Your task to perform on an android device: See recent photos Image 0: 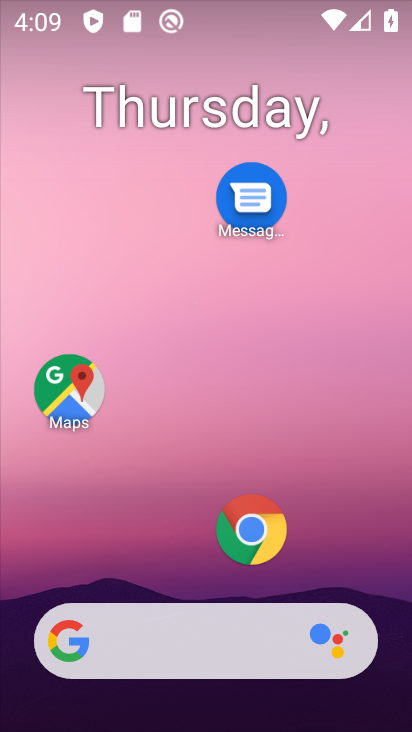
Step 0: click (264, 524)
Your task to perform on an android device: See recent photos Image 1: 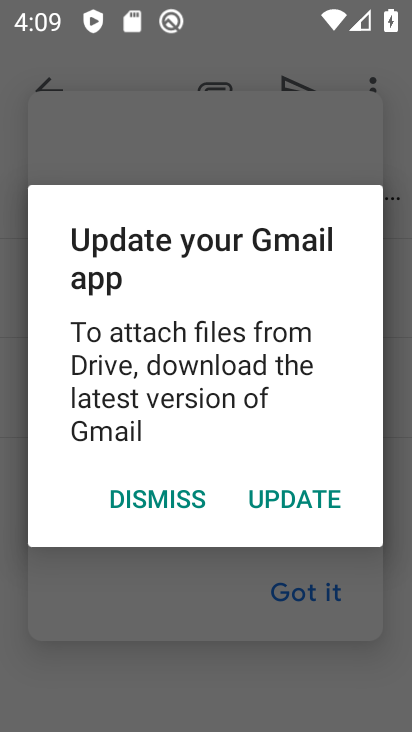
Step 1: press back button
Your task to perform on an android device: See recent photos Image 2: 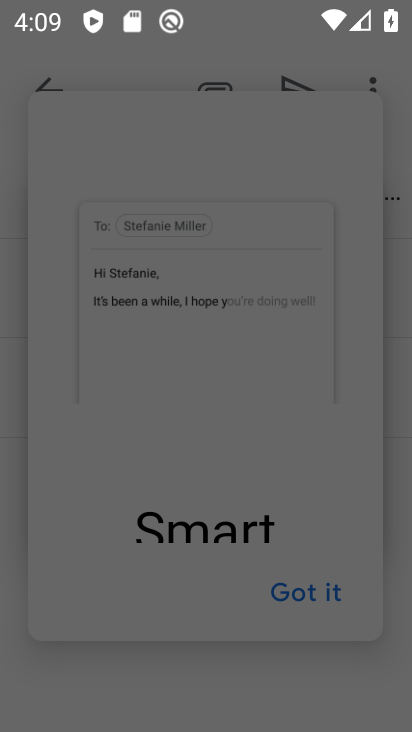
Step 2: press home button
Your task to perform on an android device: See recent photos Image 3: 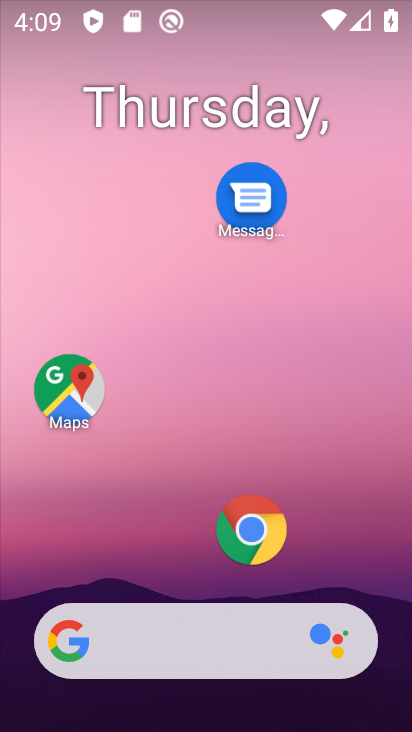
Step 3: drag from (174, 421) to (265, 18)
Your task to perform on an android device: See recent photos Image 4: 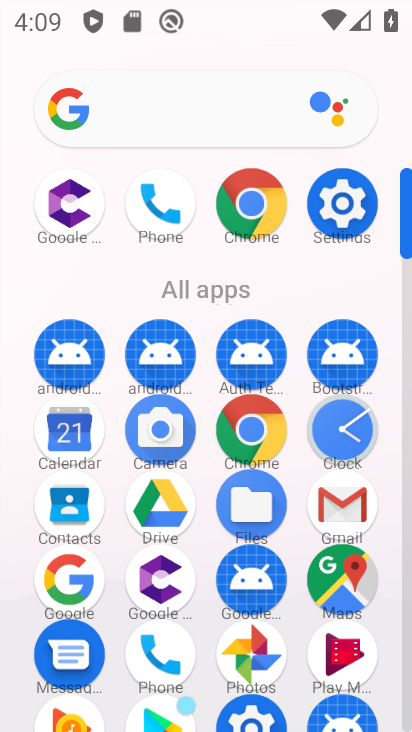
Step 4: click (260, 632)
Your task to perform on an android device: See recent photos Image 5: 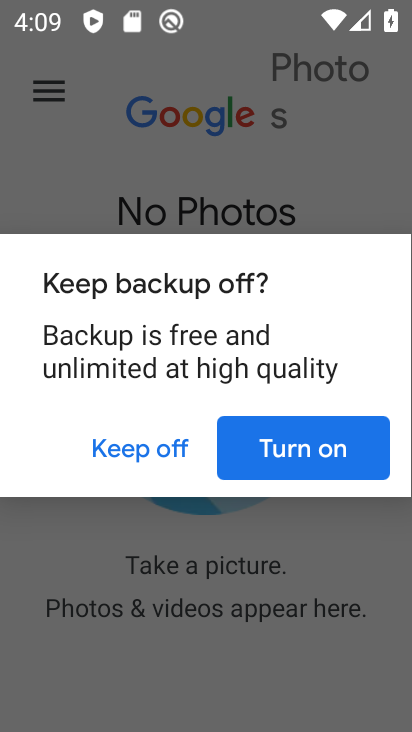
Step 5: click (204, 591)
Your task to perform on an android device: See recent photos Image 6: 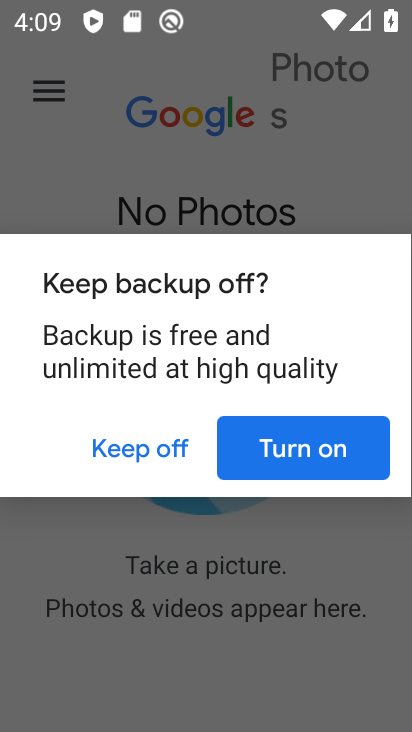
Step 6: click (140, 447)
Your task to perform on an android device: See recent photos Image 7: 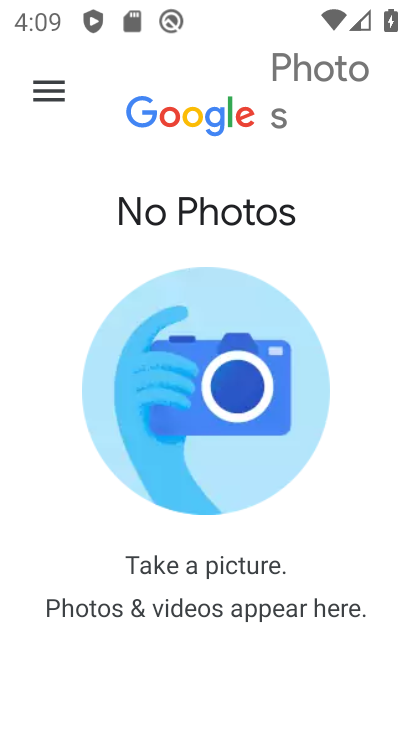
Step 7: click (37, 88)
Your task to perform on an android device: See recent photos Image 8: 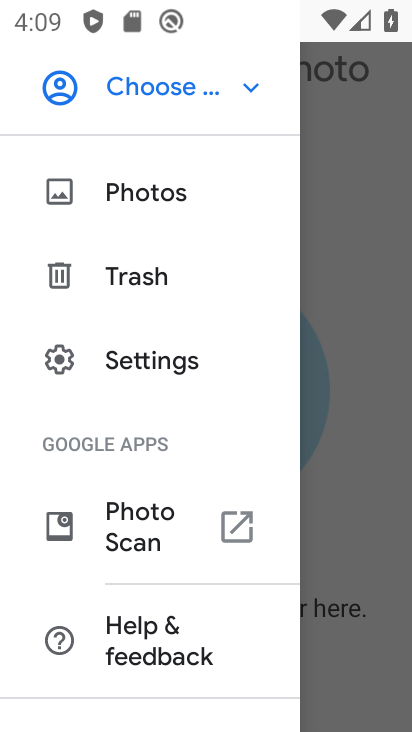
Step 8: click (142, 177)
Your task to perform on an android device: See recent photos Image 9: 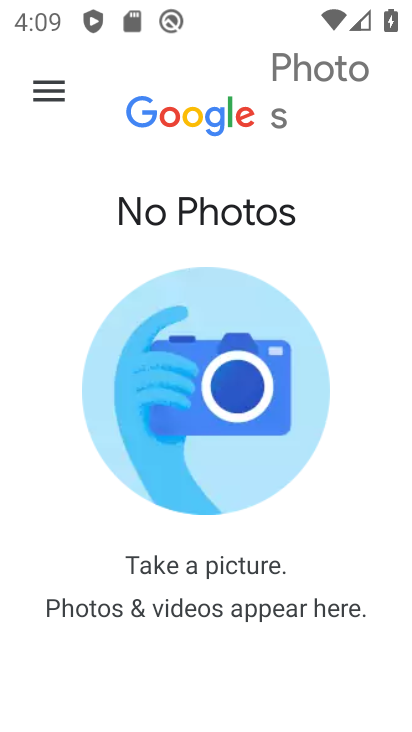
Step 9: task complete